Your task to perform on an android device: Play the new Selena Gomez video on YouTube Image 0: 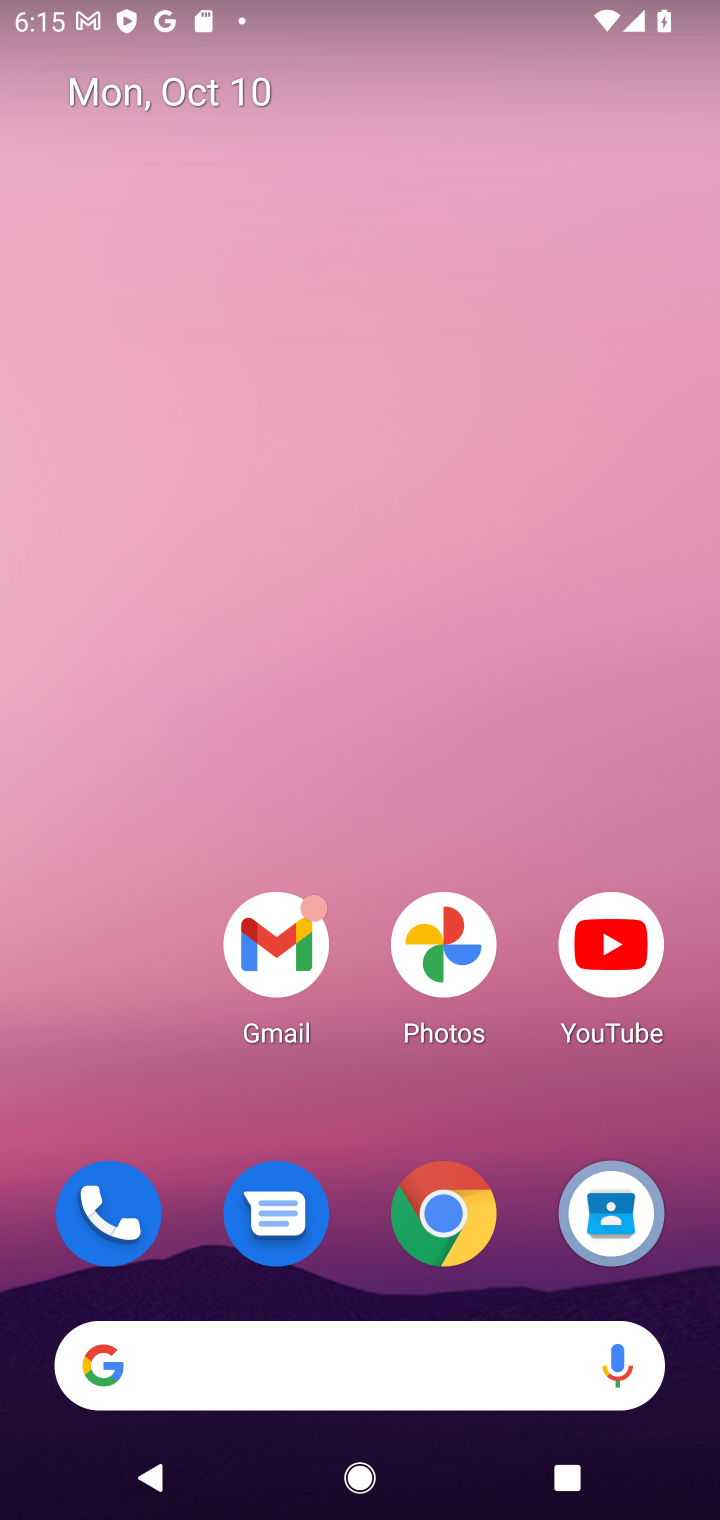
Step 0: click (611, 975)
Your task to perform on an android device: Play the new Selena Gomez video on YouTube Image 1: 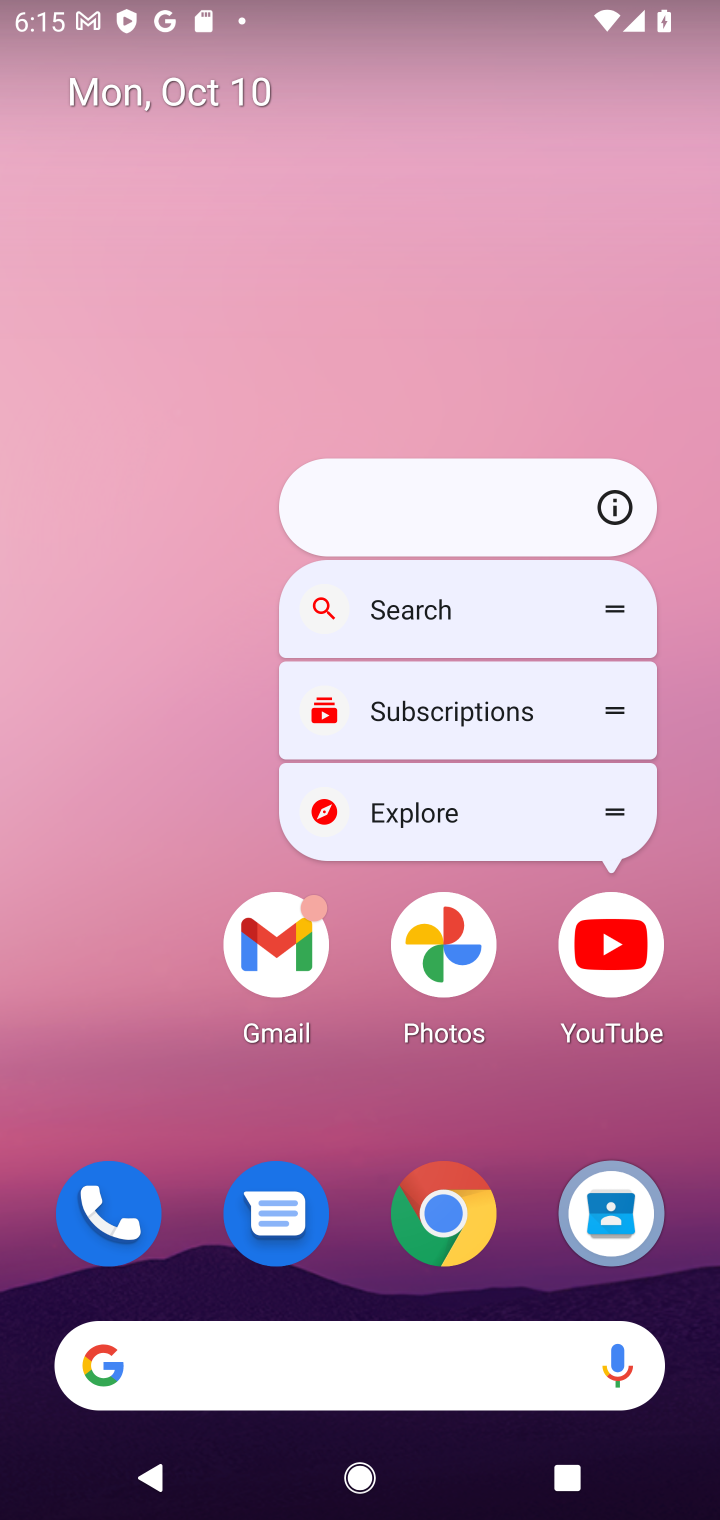
Step 1: click (606, 975)
Your task to perform on an android device: Play the new Selena Gomez video on YouTube Image 2: 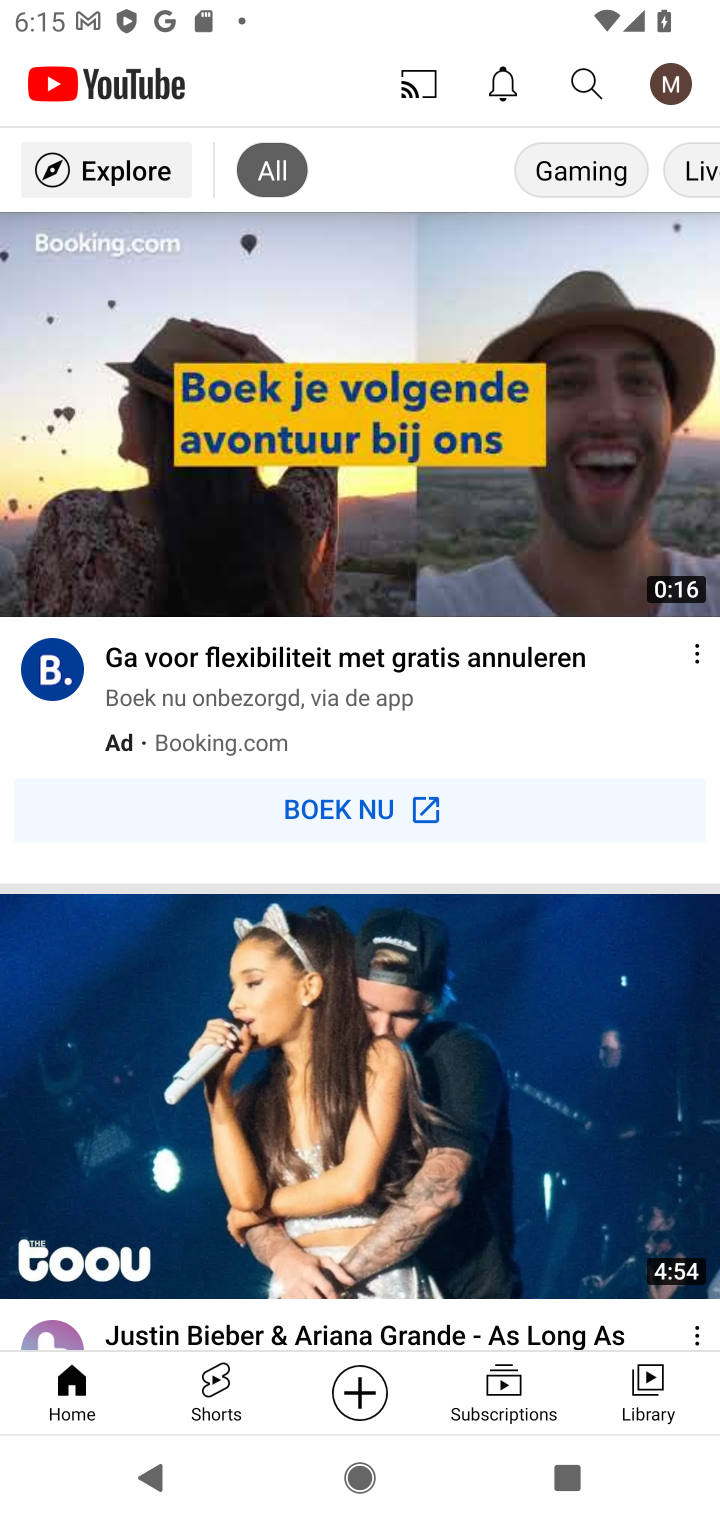
Step 2: click (584, 78)
Your task to perform on an android device: Play the new Selena Gomez video on YouTube Image 3: 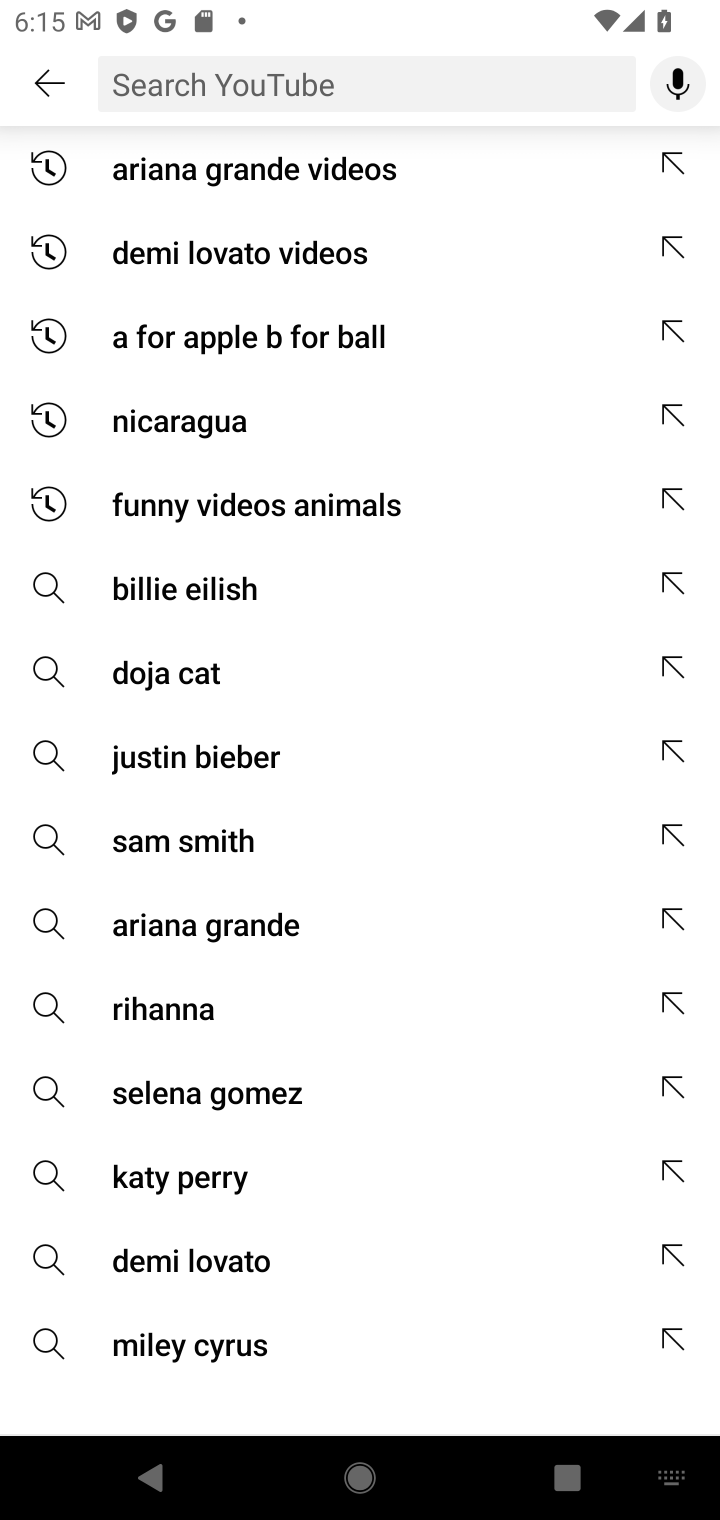
Step 3: type "new Selena Gomez video"
Your task to perform on an android device: Play the new Selena Gomez video on YouTube Image 4: 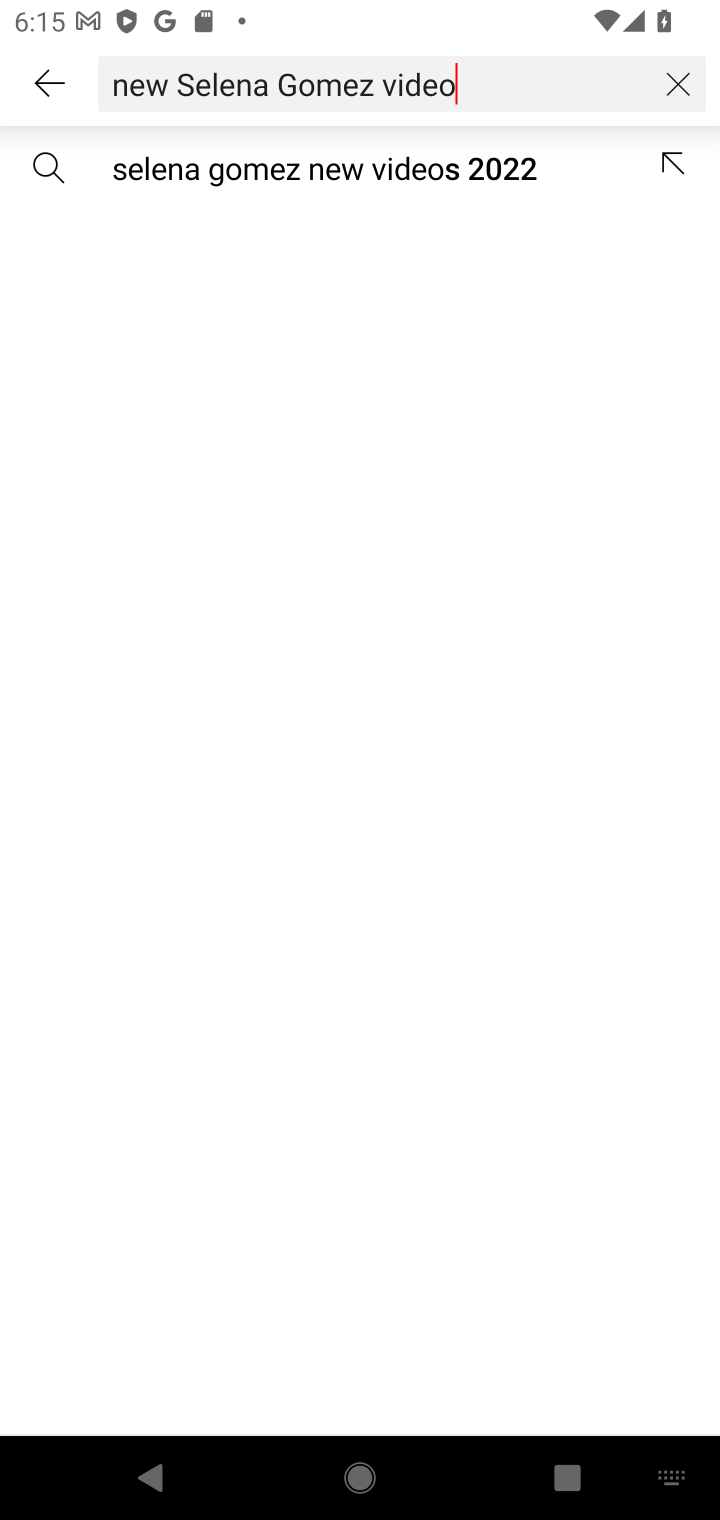
Step 4: click (334, 170)
Your task to perform on an android device: Play the new Selena Gomez video on YouTube Image 5: 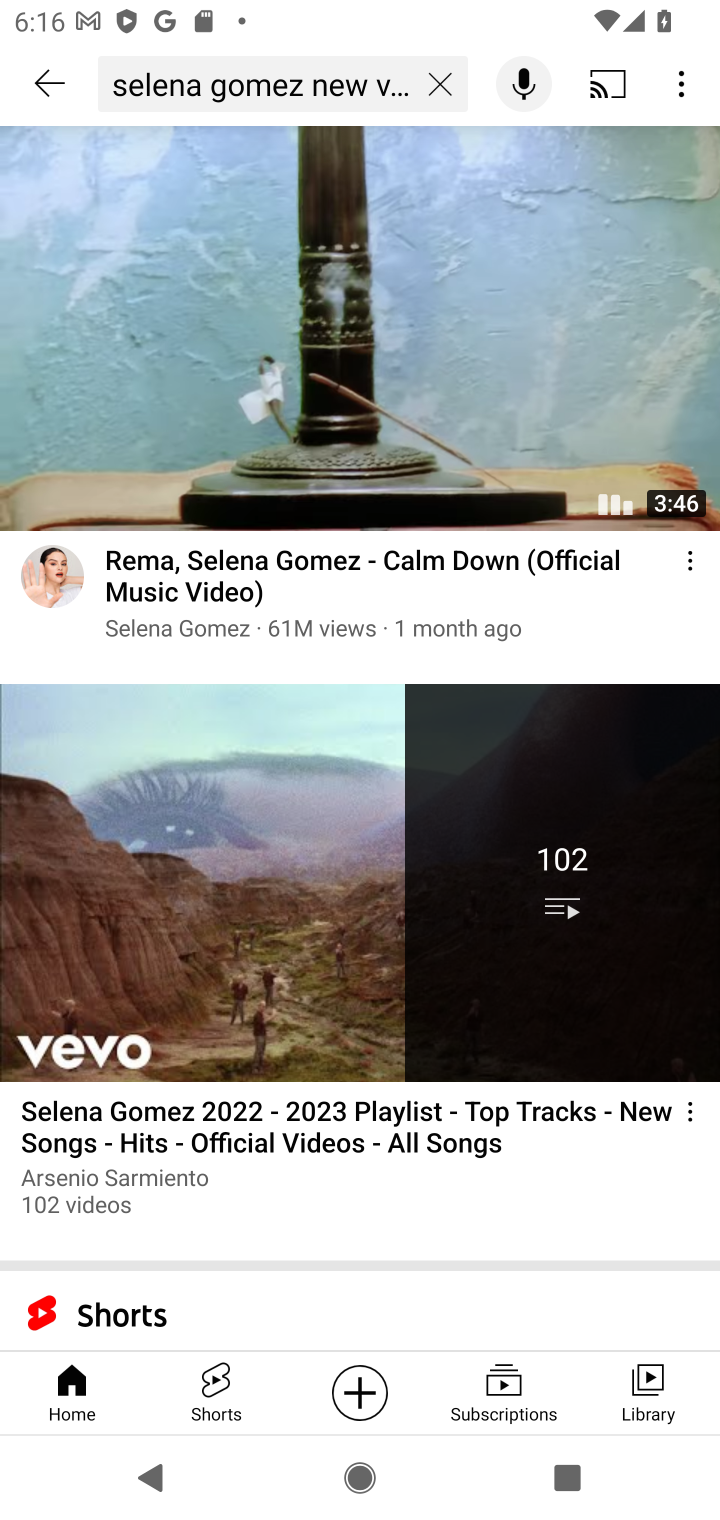
Step 5: click (382, 357)
Your task to perform on an android device: Play the new Selena Gomez video on YouTube Image 6: 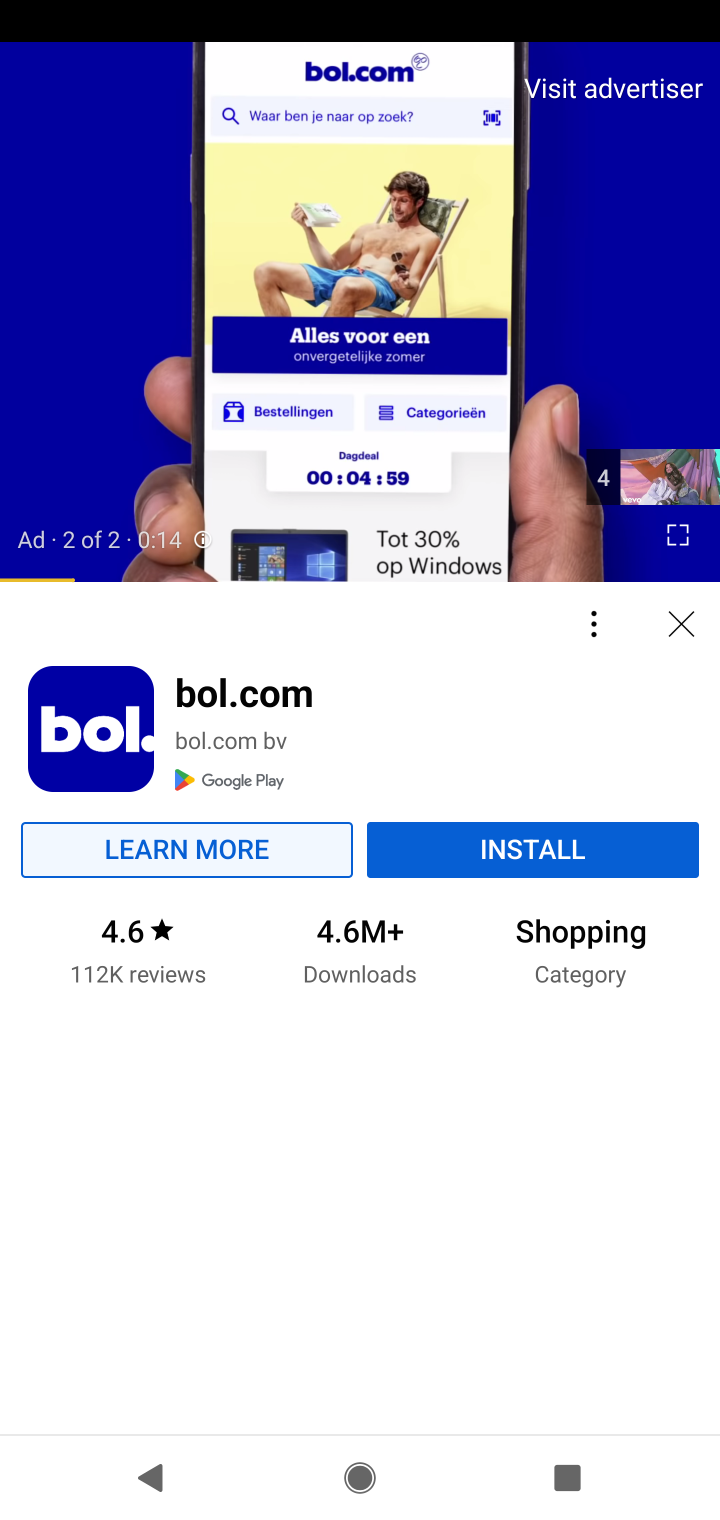
Step 6: click (384, 289)
Your task to perform on an android device: Play the new Selena Gomez video on YouTube Image 7: 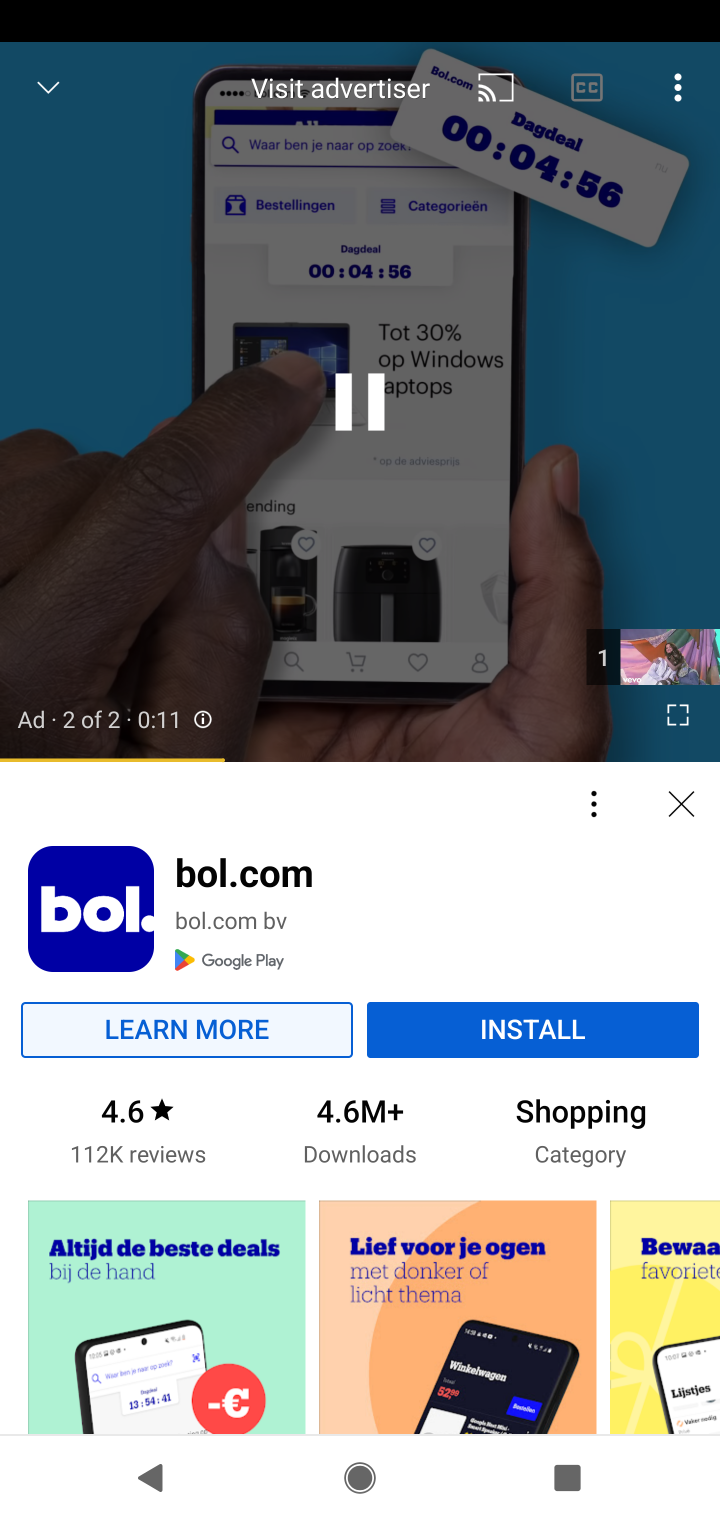
Step 7: click (362, 419)
Your task to perform on an android device: Play the new Selena Gomez video on YouTube Image 8: 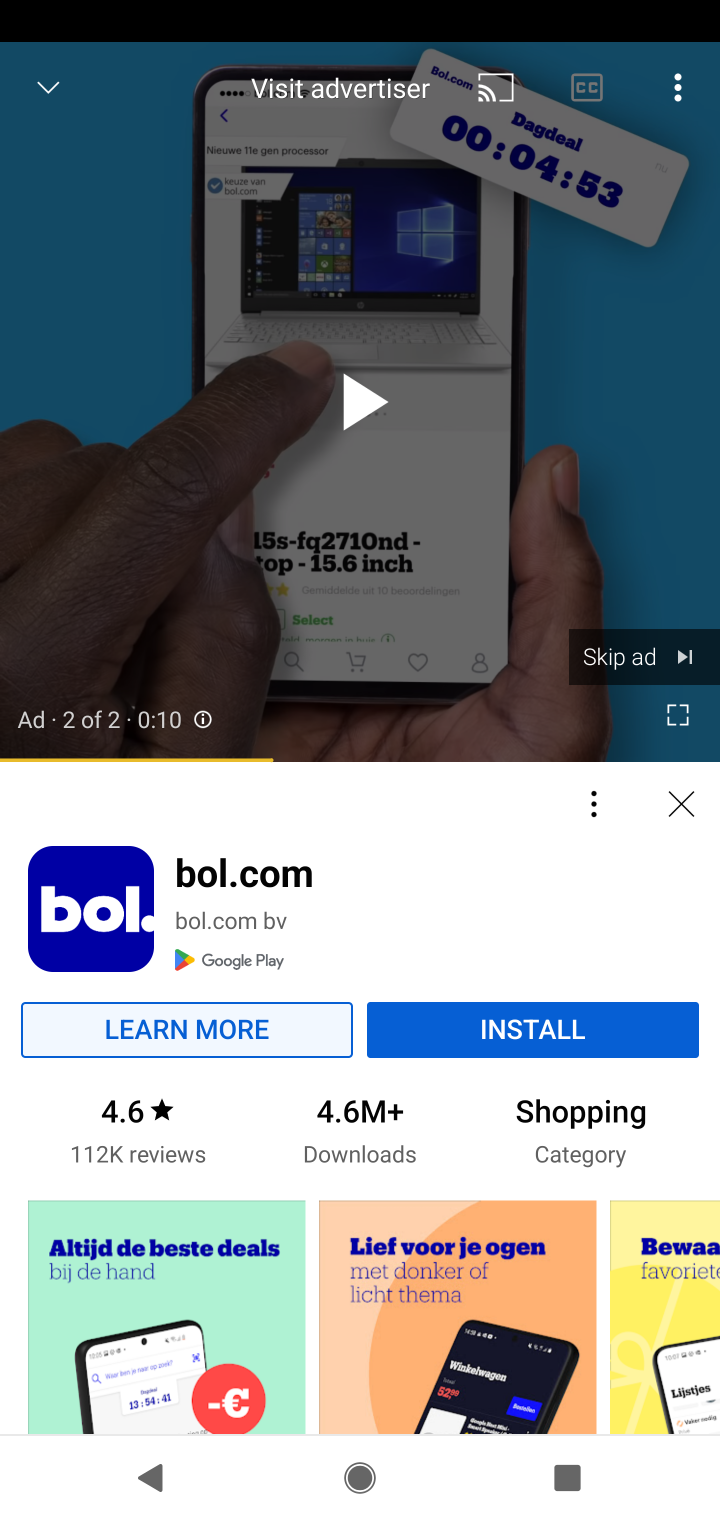
Step 8: task complete